Your task to perform on an android device: Go to CNN.com Image 0: 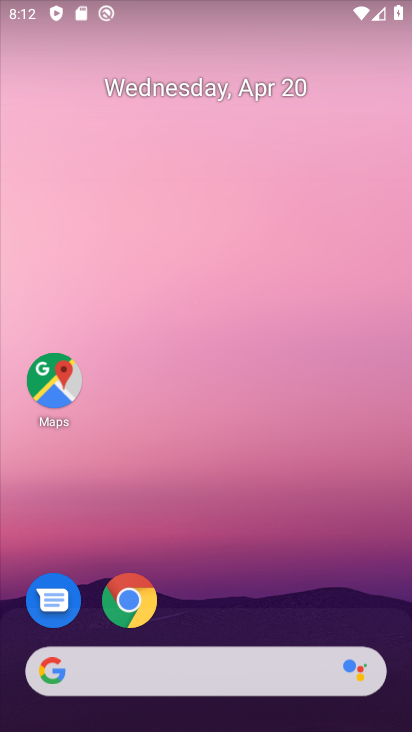
Step 0: click (135, 608)
Your task to perform on an android device: Go to CNN.com Image 1: 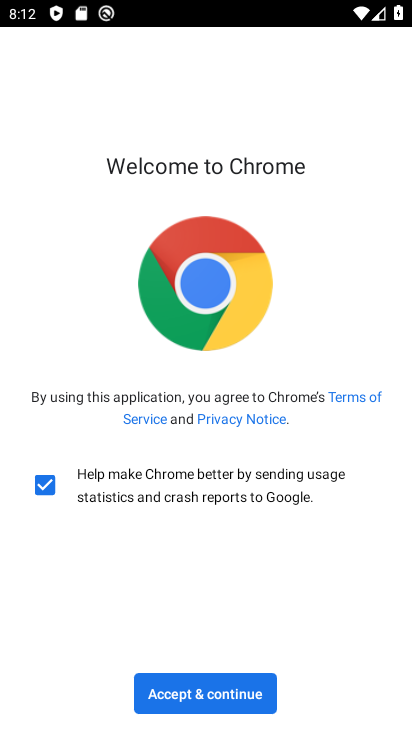
Step 1: click (218, 706)
Your task to perform on an android device: Go to CNN.com Image 2: 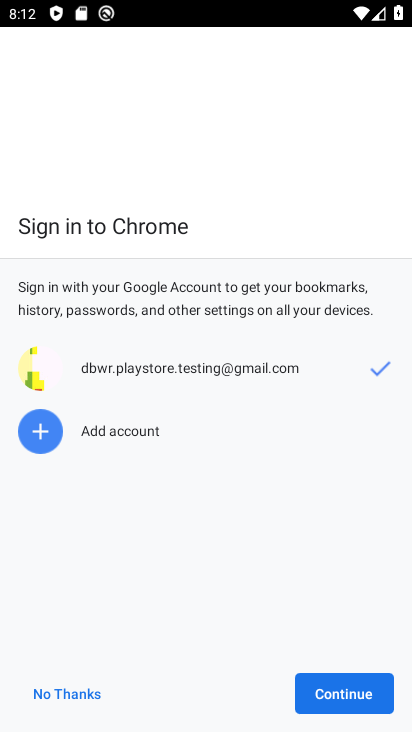
Step 2: click (330, 688)
Your task to perform on an android device: Go to CNN.com Image 3: 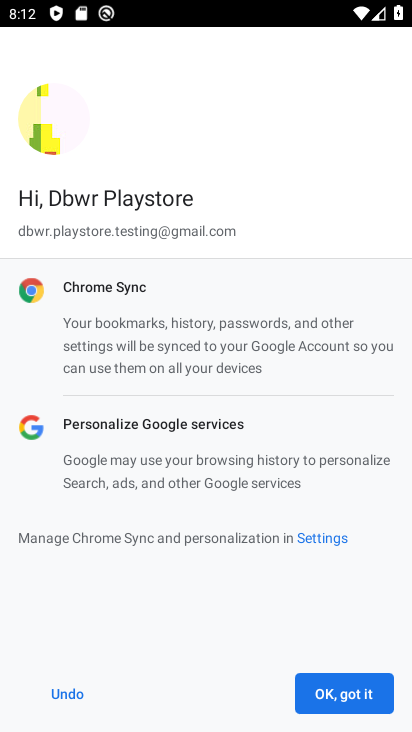
Step 3: click (334, 691)
Your task to perform on an android device: Go to CNN.com Image 4: 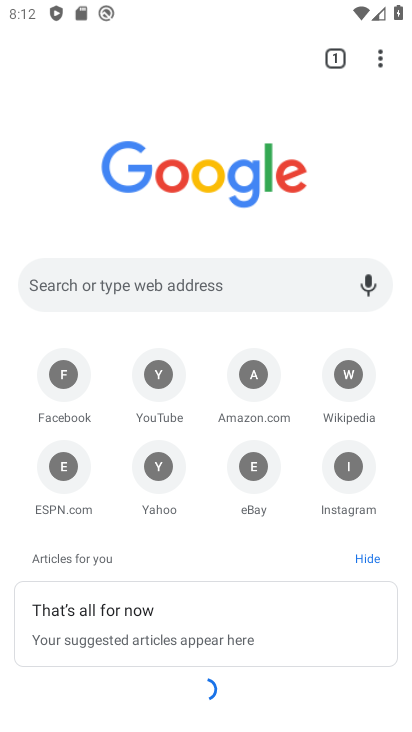
Step 4: click (273, 277)
Your task to perform on an android device: Go to CNN.com Image 5: 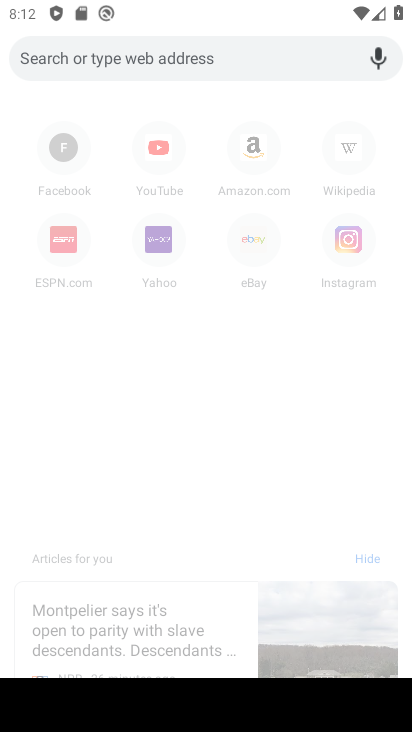
Step 5: type "CNN.com"
Your task to perform on an android device: Go to CNN.com Image 6: 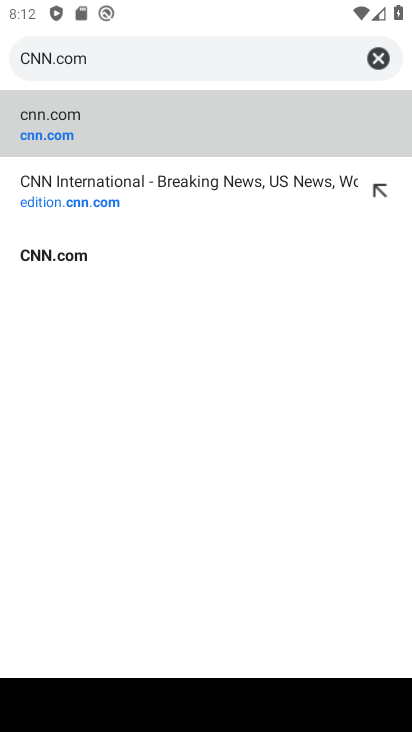
Step 6: click (79, 127)
Your task to perform on an android device: Go to CNN.com Image 7: 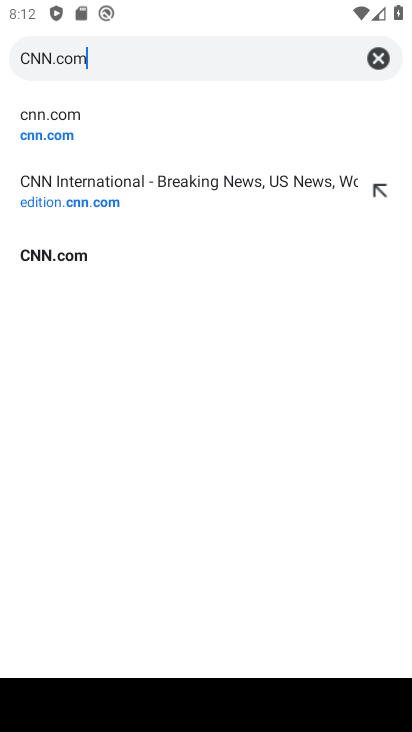
Step 7: click (35, 137)
Your task to perform on an android device: Go to CNN.com Image 8: 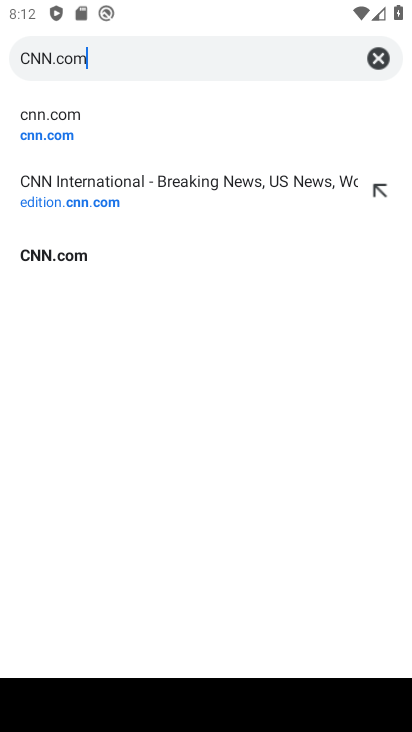
Step 8: click (35, 139)
Your task to perform on an android device: Go to CNN.com Image 9: 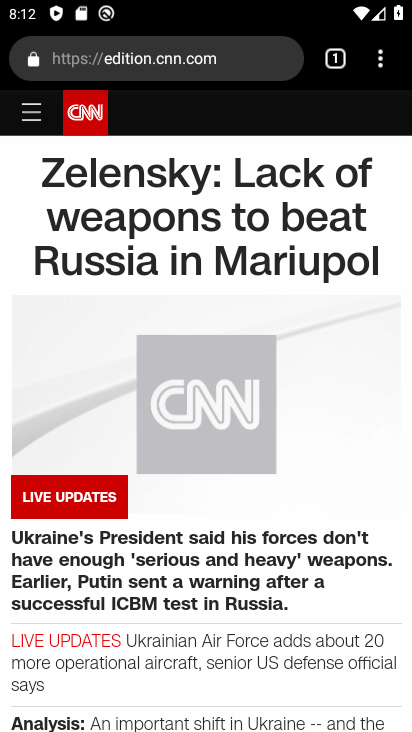
Step 9: task complete